Your task to perform on an android device: Look up the best rated gaming chairs on Target. Image 0: 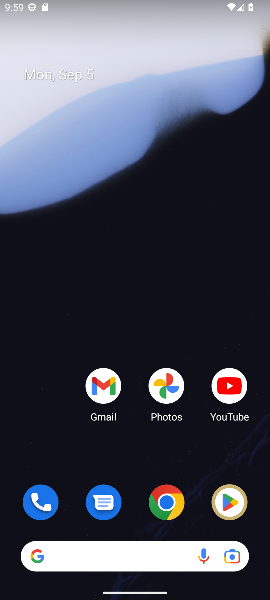
Step 0: drag from (261, 418) to (228, 24)
Your task to perform on an android device: Look up the best rated gaming chairs on Target. Image 1: 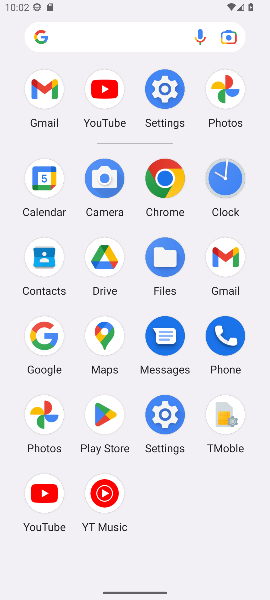
Step 1: click (45, 336)
Your task to perform on an android device: Look up the best rated gaming chairs on Target. Image 2: 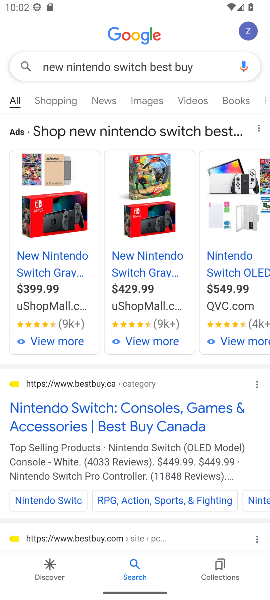
Step 2: press back button
Your task to perform on an android device: Look up the best rated gaming chairs on Target. Image 3: 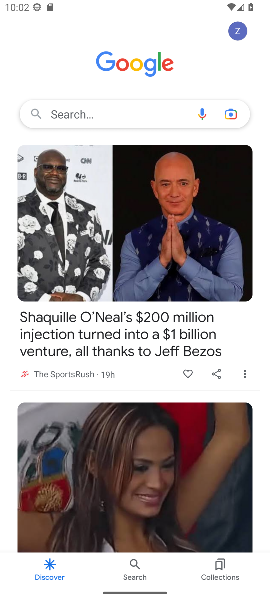
Step 3: click (78, 113)
Your task to perform on an android device: Look up the best rated gaming chairs on Target. Image 4: 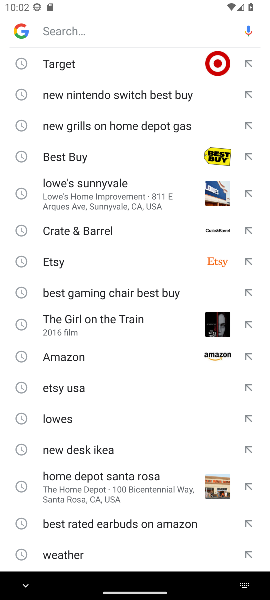
Step 4: type " best rated gaming chairs on Target"
Your task to perform on an android device: Look up the best rated gaming chairs on Target. Image 5: 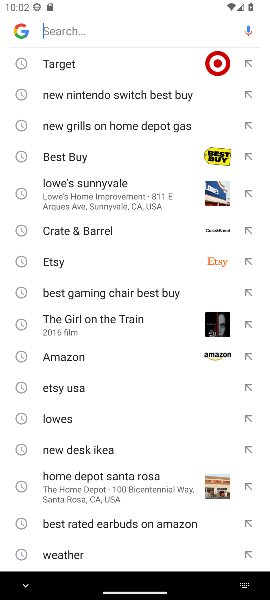
Step 5: click (105, 34)
Your task to perform on an android device: Look up the best rated gaming chairs on Target. Image 6: 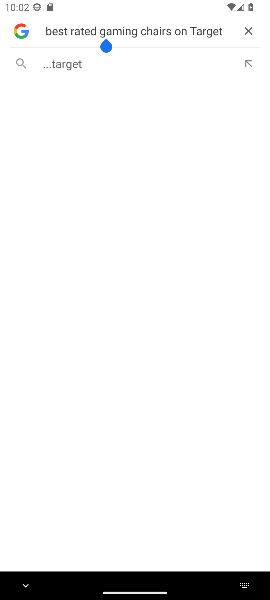
Step 6: click (63, 63)
Your task to perform on an android device: Look up the best rated gaming chairs on Target. Image 7: 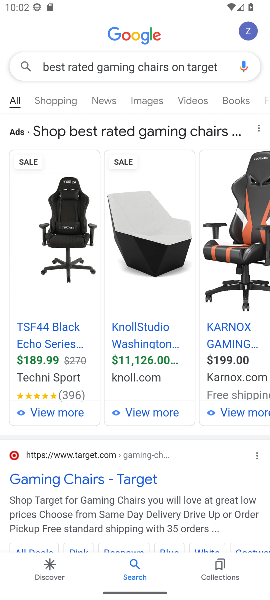
Step 7: task complete